Your task to perform on an android device: What's on my calendar tomorrow? Image 0: 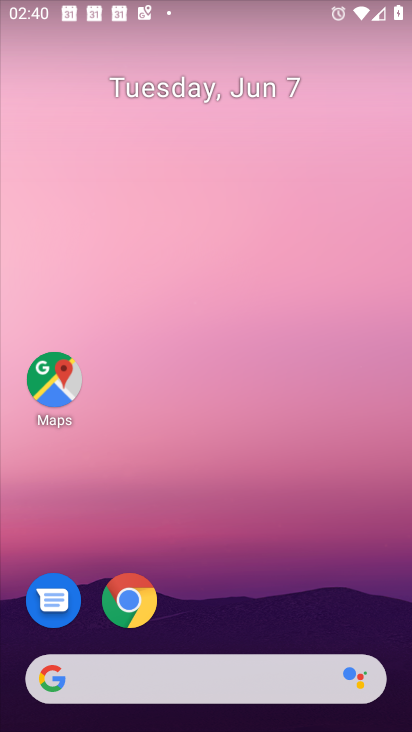
Step 0: drag from (224, 714) to (230, 75)
Your task to perform on an android device: What's on my calendar tomorrow? Image 1: 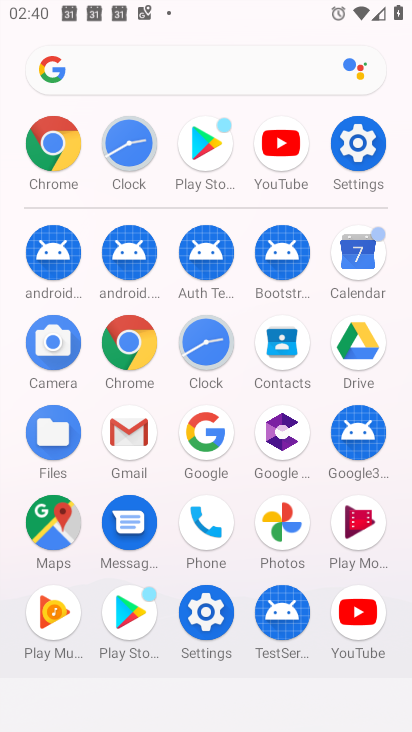
Step 1: click (369, 251)
Your task to perform on an android device: What's on my calendar tomorrow? Image 2: 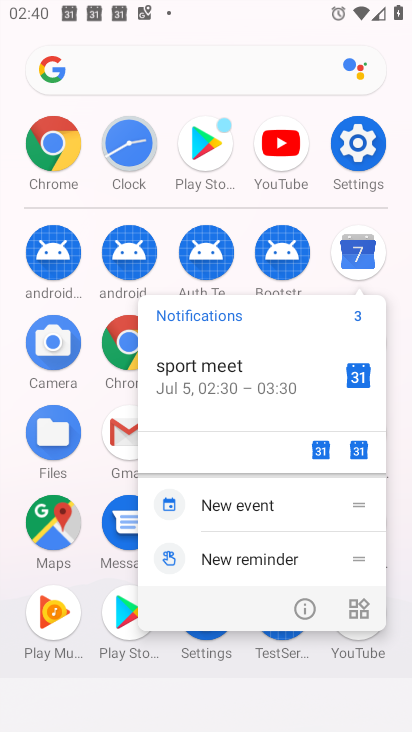
Step 2: click (369, 253)
Your task to perform on an android device: What's on my calendar tomorrow? Image 3: 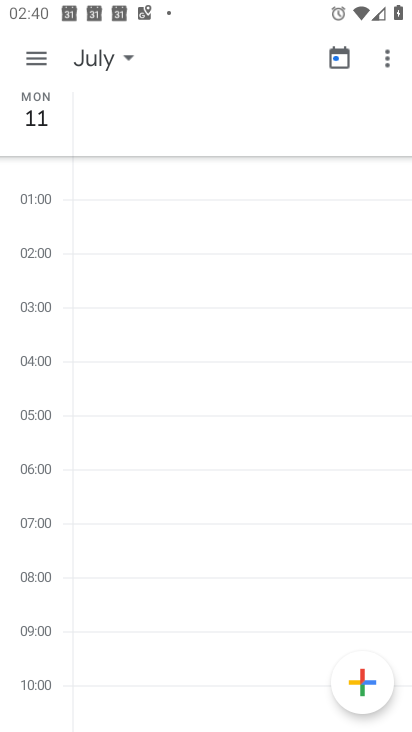
Step 3: click (130, 55)
Your task to perform on an android device: What's on my calendar tomorrow? Image 4: 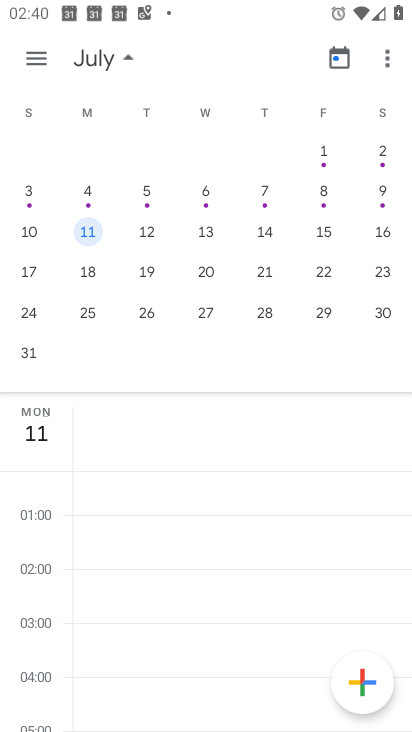
Step 4: drag from (52, 293) to (386, 245)
Your task to perform on an android device: What's on my calendar tomorrow? Image 5: 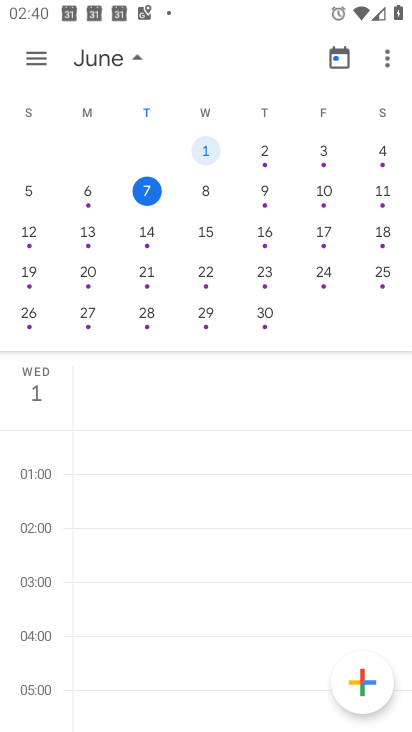
Step 5: click (200, 186)
Your task to perform on an android device: What's on my calendar tomorrow? Image 6: 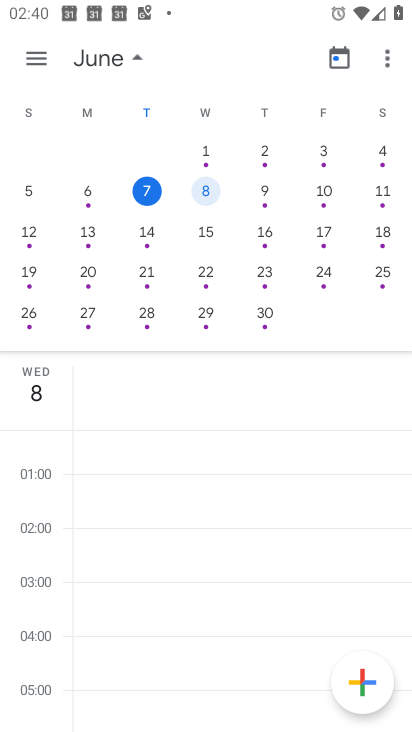
Step 6: click (203, 188)
Your task to perform on an android device: What's on my calendar tomorrow? Image 7: 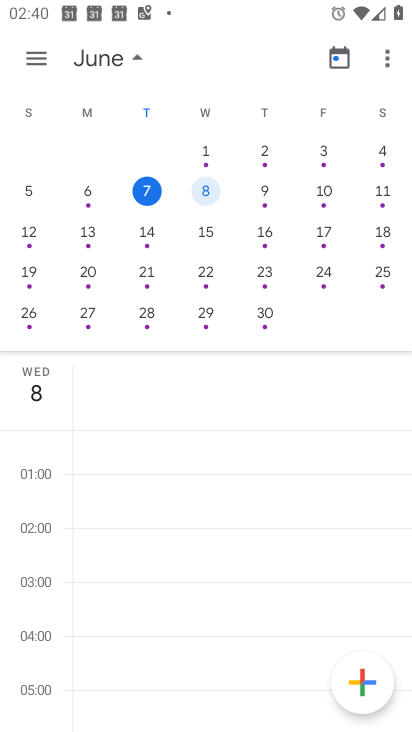
Step 7: click (142, 51)
Your task to perform on an android device: What's on my calendar tomorrow? Image 8: 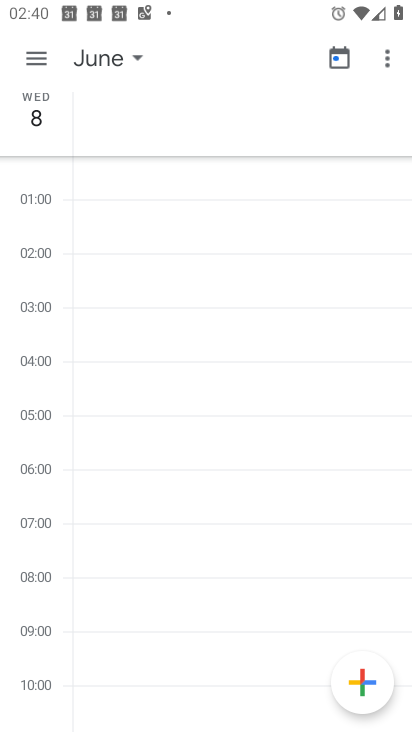
Step 8: task complete